Your task to perform on an android device: Search for Mexican restaurants on Maps Image 0: 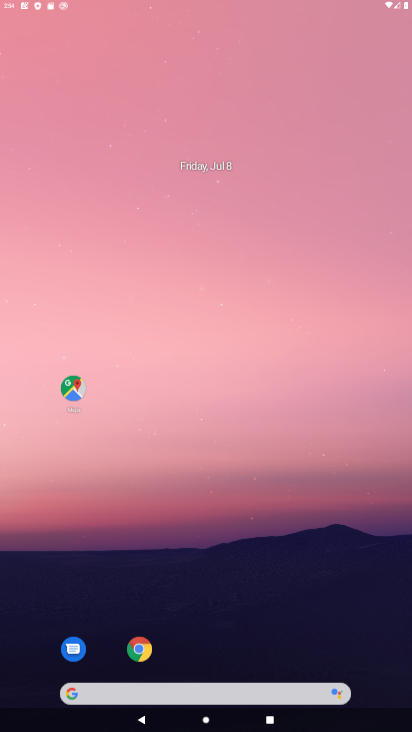
Step 0: drag from (213, 586) to (217, 204)
Your task to perform on an android device: Search for Mexican restaurants on Maps Image 1: 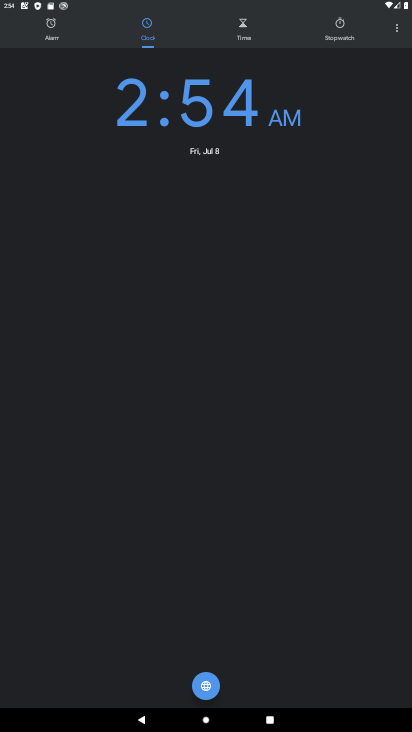
Step 1: press home button
Your task to perform on an android device: Search for Mexican restaurants on Maps Image 2: 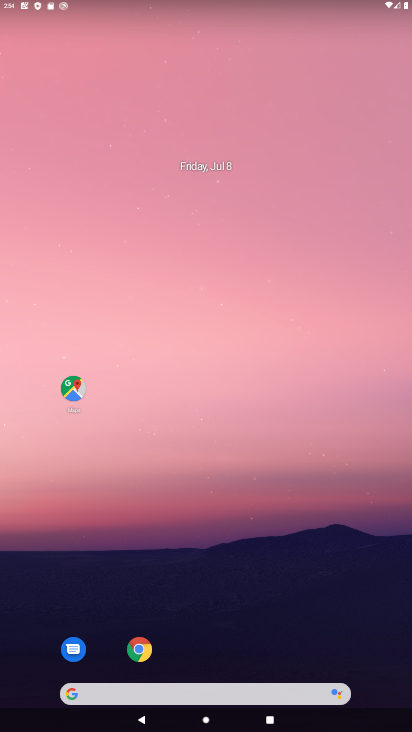
Step 2: click (69, 376)
Your task to perform on an android device: Search for Mexican restaurants on Maps Image 3: 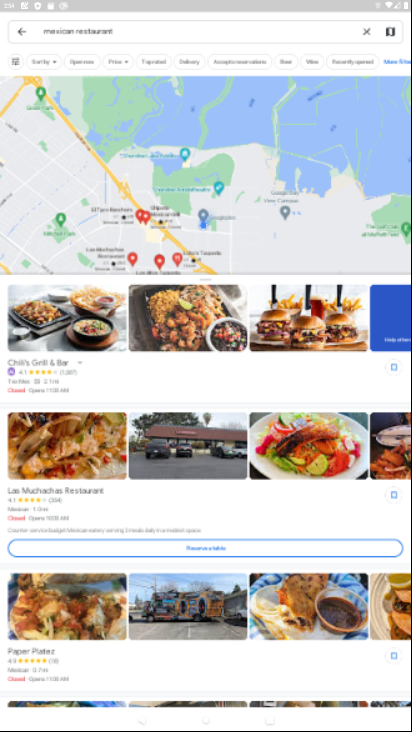
Step 3: click (365, 35)
Your task to perform on an android device: Search for Mexican restaurants on Maps Image 4: 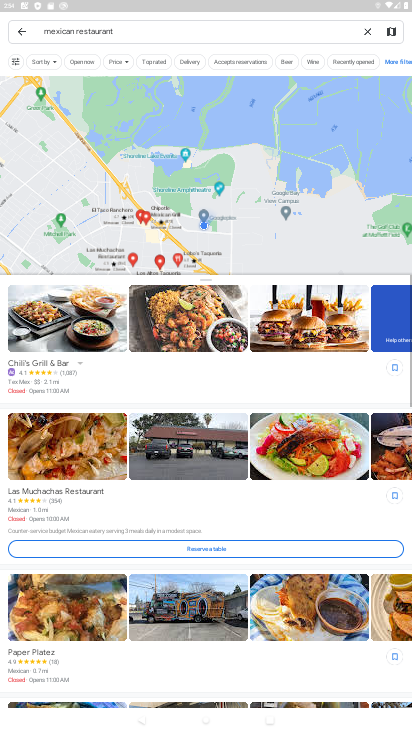
Step 4: task complete